Your task to perform on an android device: Search for seafood restaurants on Google Maps Image 0: 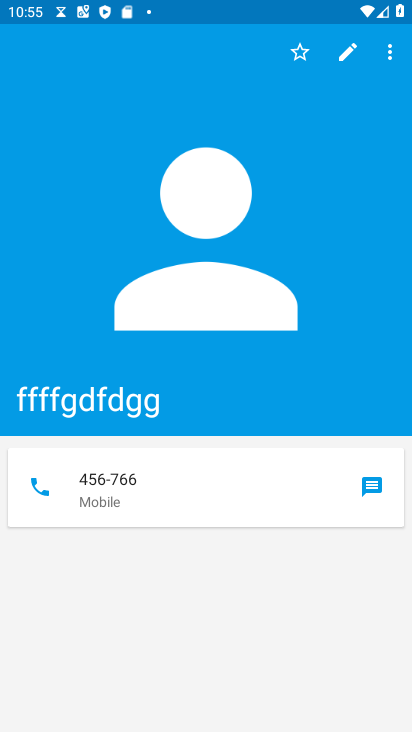
Step 0: press home button
Your task to perform on an android device: Search for seafood restaurants on Google Maps Image 1: 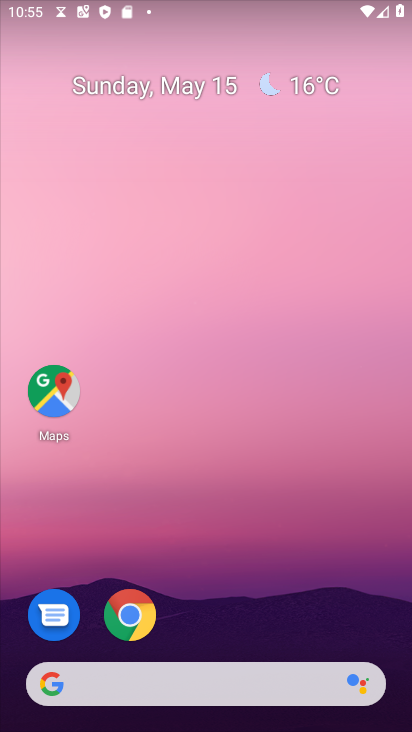
Step 1: drag from (354, 685) to (411, 199)
Your task to perform on an android device: Search for seafood restaurants on Google Maps Image 2: 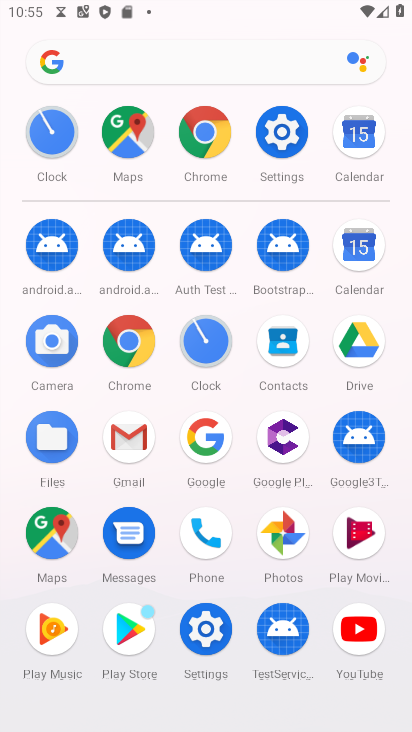
Step 2: click (51, 540)
Your task to perform on an android device: Search for seafood restaurants on Google Maps Image 3: 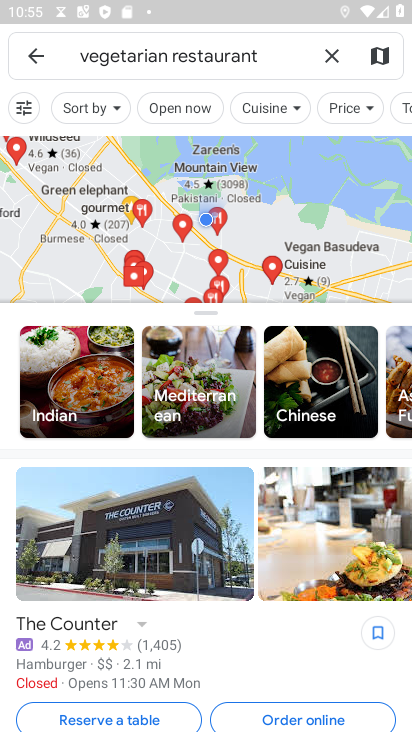
Step 3: click (329, 50)
Your task to perform on an android device: Search for seafood restaurants on Google Maps Image 4: 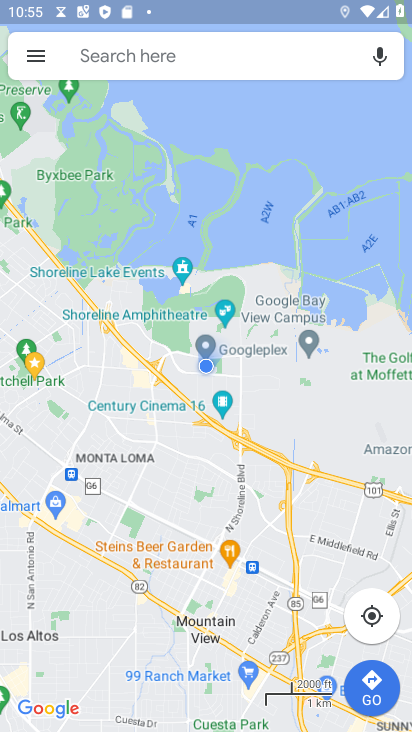
Step 4: click (177, 57)
Your task to perform on an android device: Search for seafood restaurants on Google Maps Image 5: 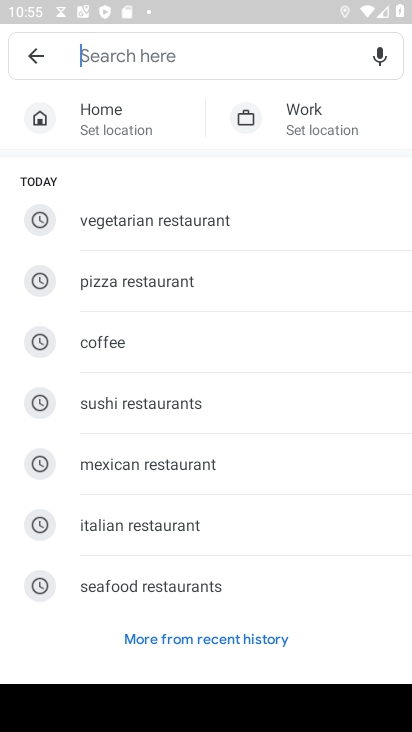
Step 5: click (183, 579)
Your task to perform on an android device: Search for seafood restaurants on Google Maps Image 6: 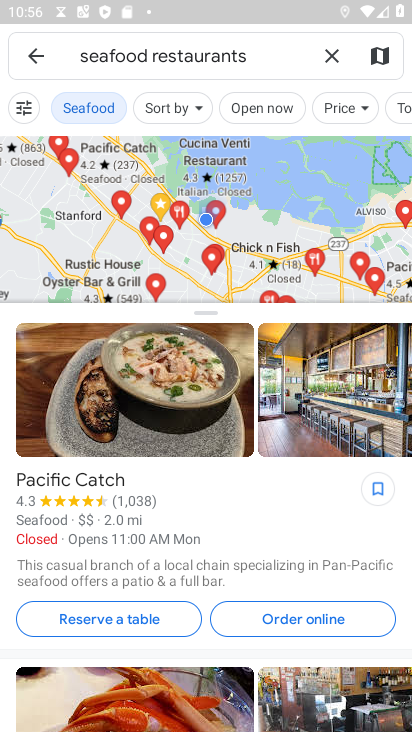
Step 6: task complete